Your task to perform on an android device: open chrome privacy settings Image 0: 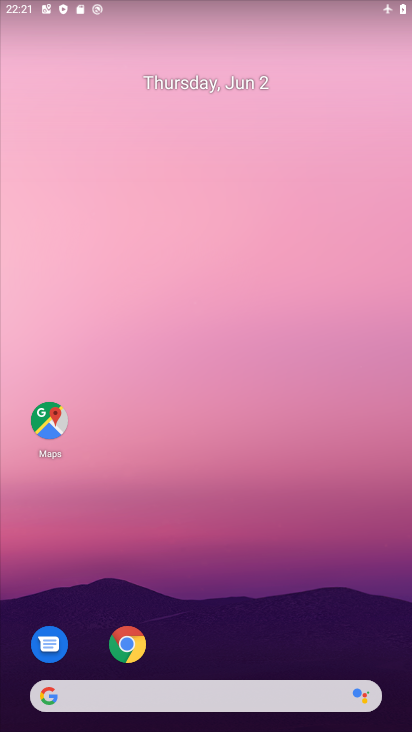
Step 0: click (122, 650)
Your task to perform on an android device: open chrome privacy settings Image 1: 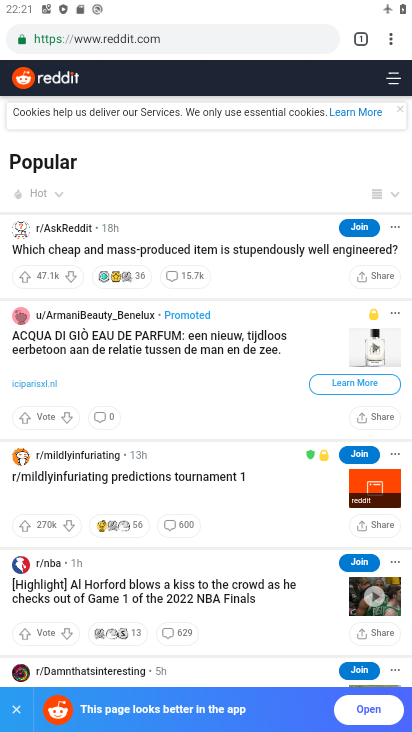
Step 1: click (395, 42)
Your task to perform on an android device: open chrome privacy settings Image 2: 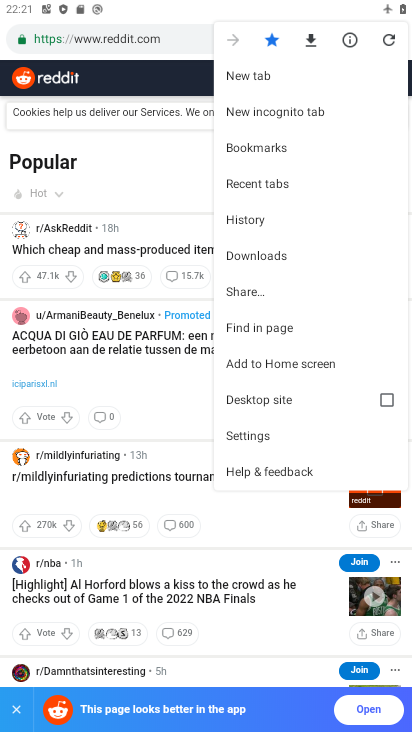
Step 2: click (253, 439)
Your task to perform on an android device: open chrome privacy settings Image 3: 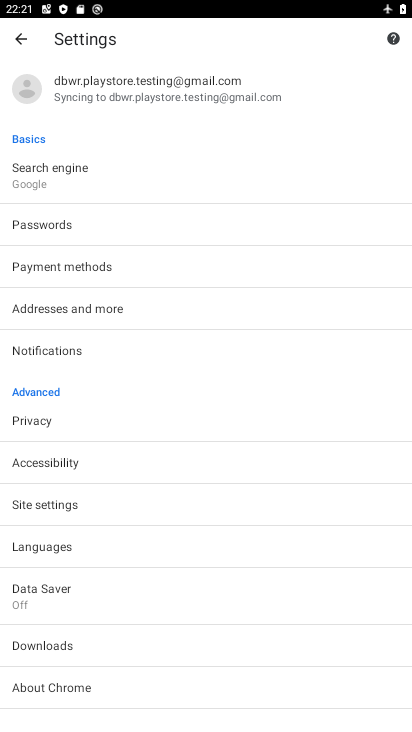
Step 3: drag from (61, 634) to (70, 426)
Your task to perform on an android device: open chrome privacy settings Image 4: 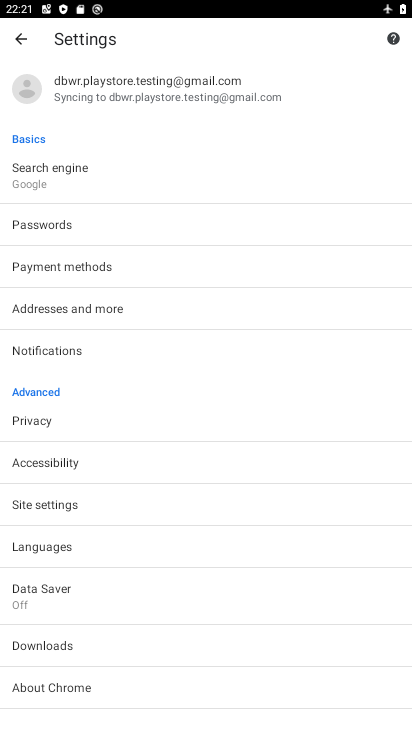
Step 4: click (47, 418)
Your task to perform on an android device: open chrome privacy settings Image 5: 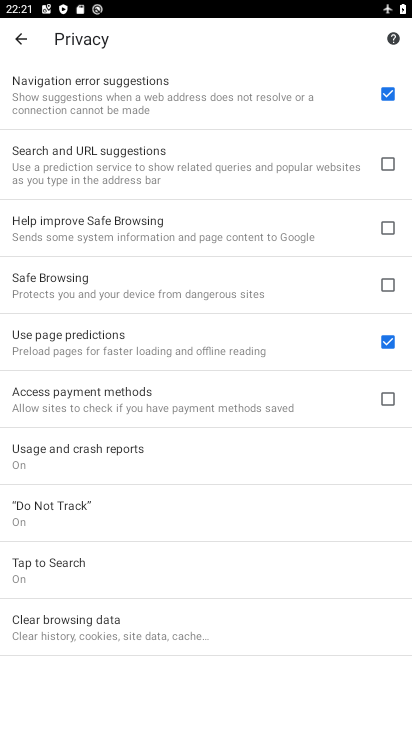
Step 5: task complete